Your task to perform on an android device: Go to ESPN.com Image 0: 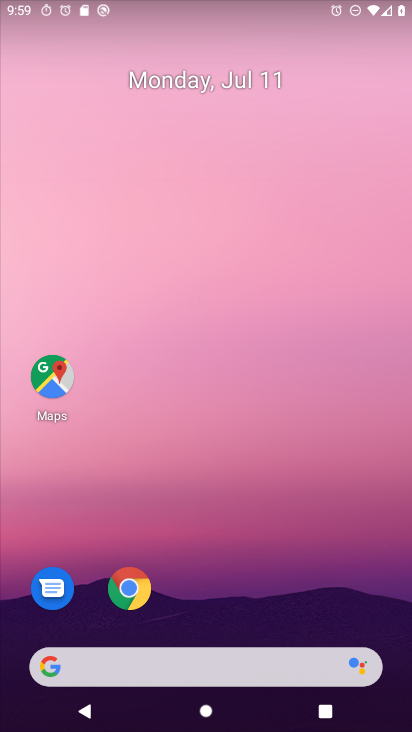
Step 0: click (134, 586)
Your task to perform on an android device: Go to ESPN.com Image 1: 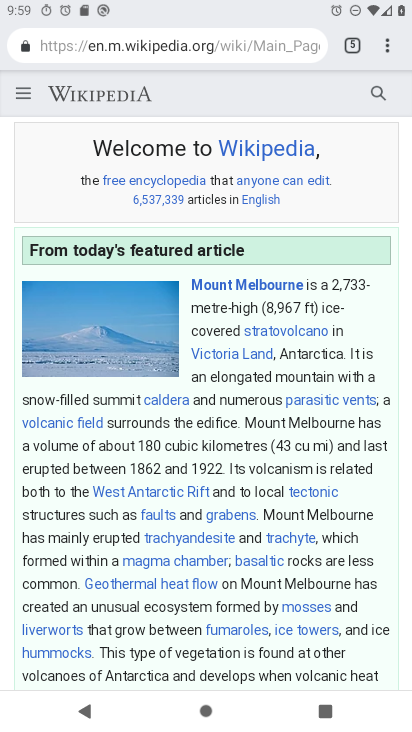
Step 1: drag from (389, 41) to (237, 150)
Your task to perform on an android device: Go to ESPN.com Image 2: 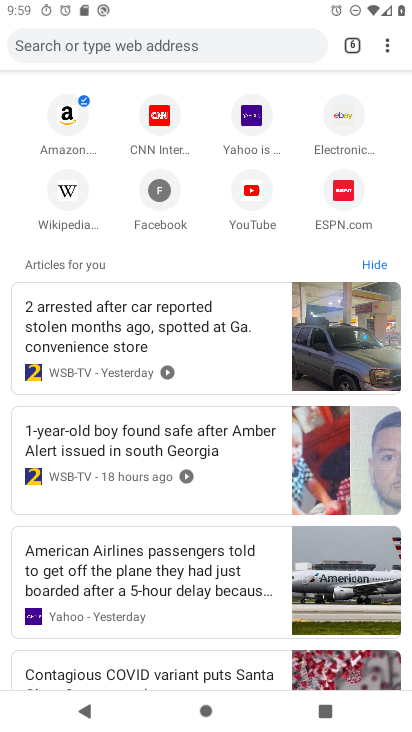
Step 2: click (333, 194)
Your task to perform on an android device: Go to ESPN.com Image 3: 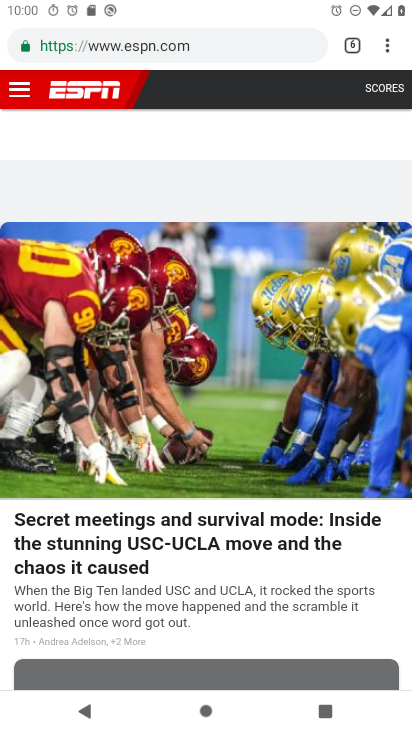
Step 3: task complete